Your task to perform on an android device: clear all cookies in the chrome app Image 0: 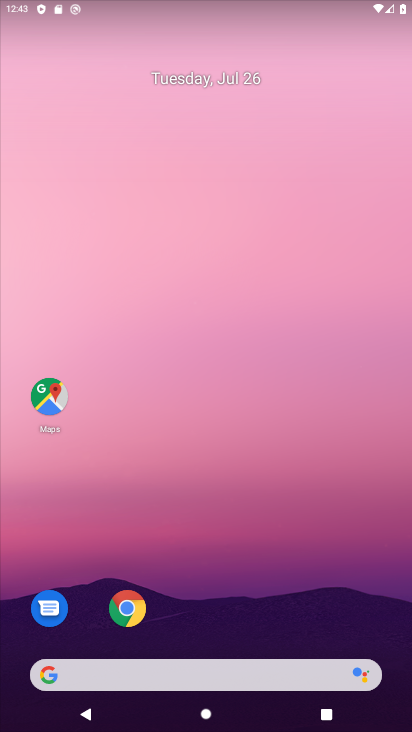
Step 0: click (133, 610)
Your task to perform on an android device: clear all cookies in the chrome app Image 1: 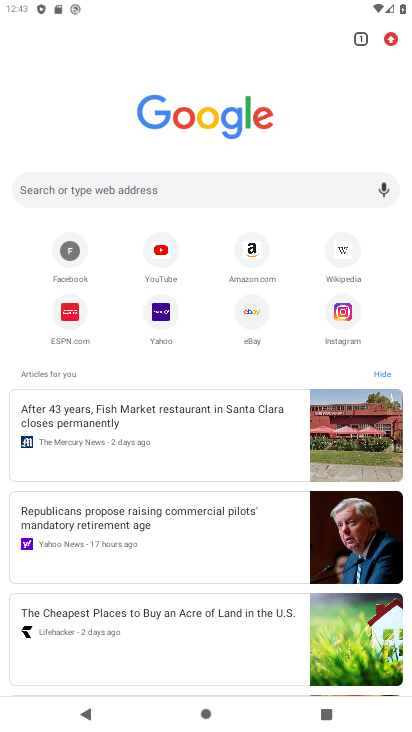
Step 1: click (392, 42)
Your task to perform on an android device: clear all cookies in the chrome app Image 2: 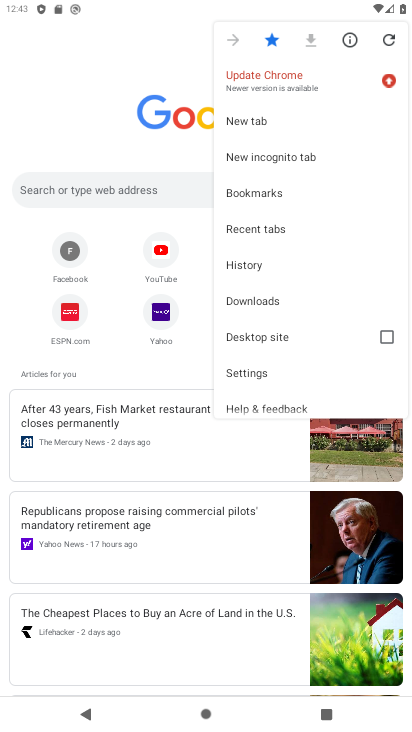
Step 2: click (252, 268)
Your task to perform on an android device: clear all cookies in the chrome app Image 3: 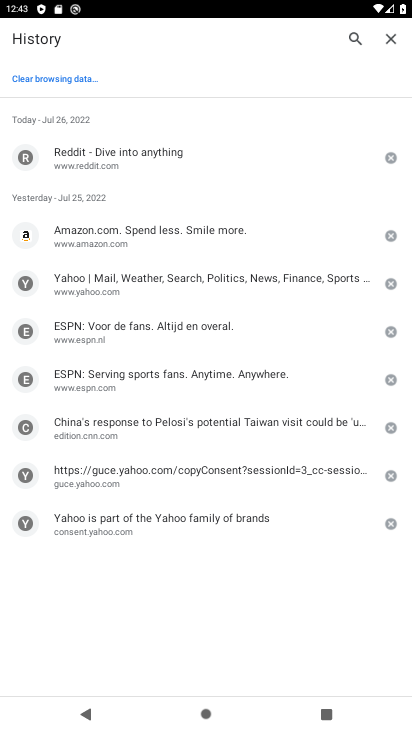
Step 3: click (64, 75)
Your task to perform on an android device: clear all cookies in the chrome app Image 4: 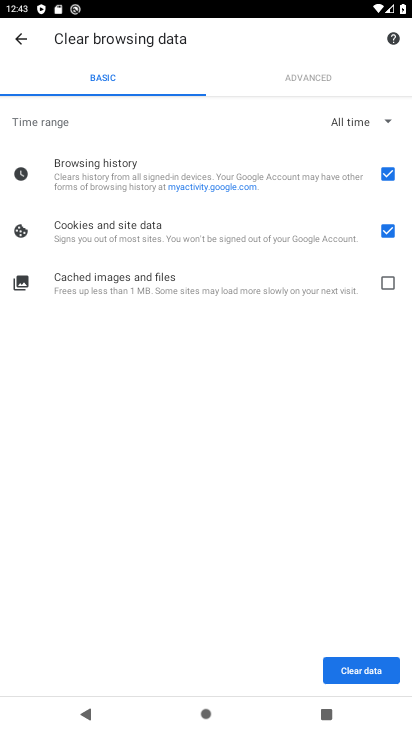
Step 4: click (385, 176)
Your task to perform on an android device: clear all cookies in the chrome app Image 5: 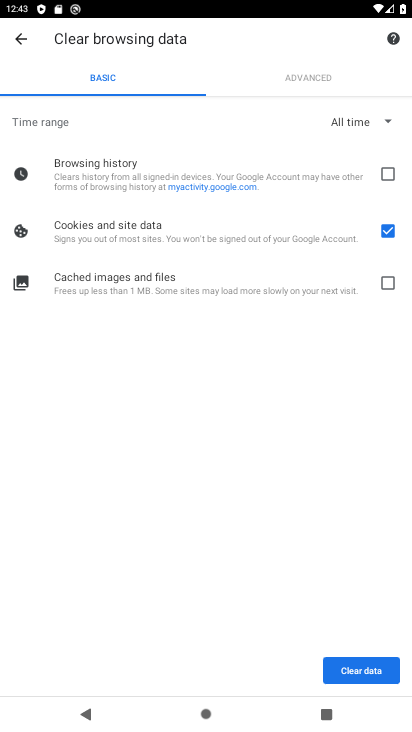
Step 5: click (357, 670)
Your task to perform on an android device: clear all cookies in the chrome app Image 6: 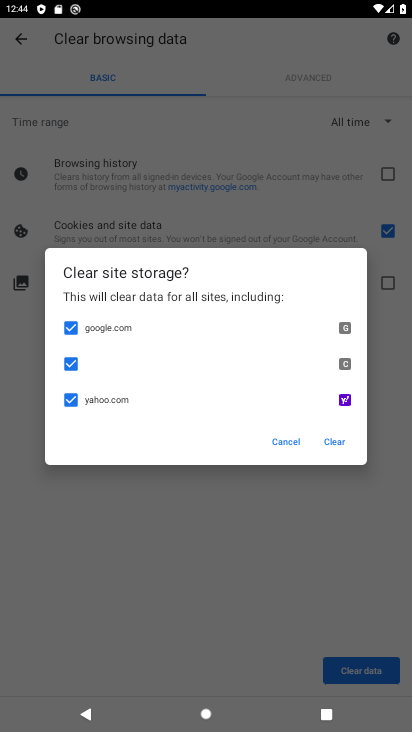
Step 6: click (340, 437)
Your task to perform on an android device: clear all cookies in the chrome app Image 7: 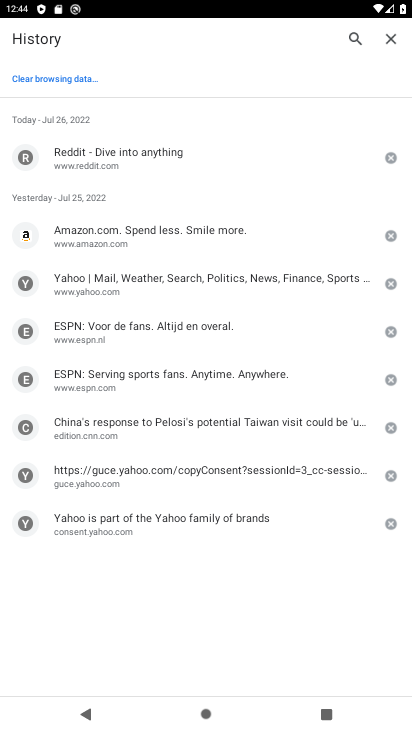
Step 7: task complete